Your task to perform on an android device: add a contact in the contacts app Image 0: 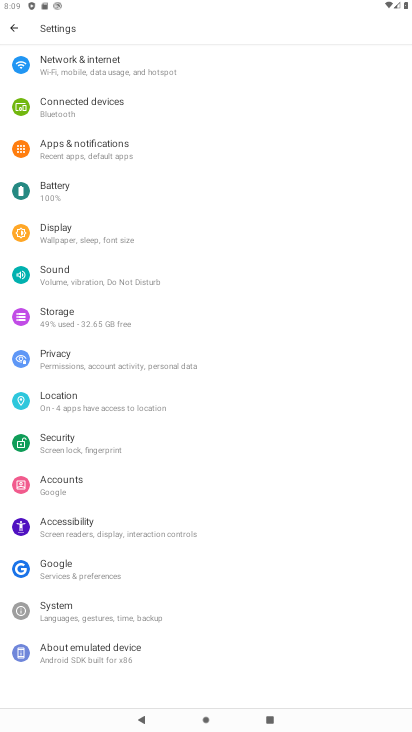
Step 0: press home button
Your task to perform on an android device: add a contact in the contacts app Image 1: 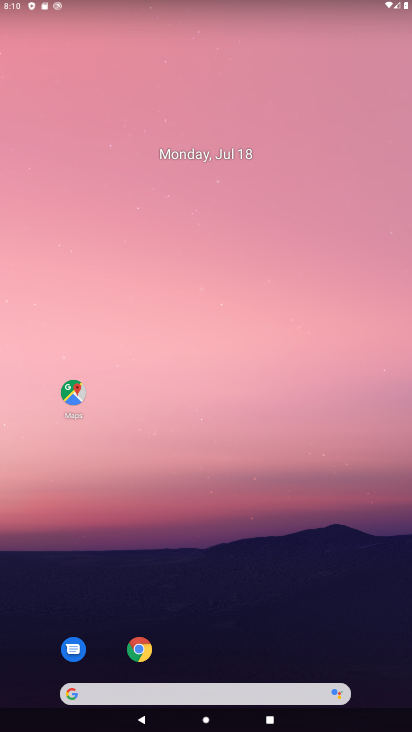
Step 1: drag from (263, 503) to (248, 260)
Your task to perform on an android device: add a contact in the contacts app Image 2: 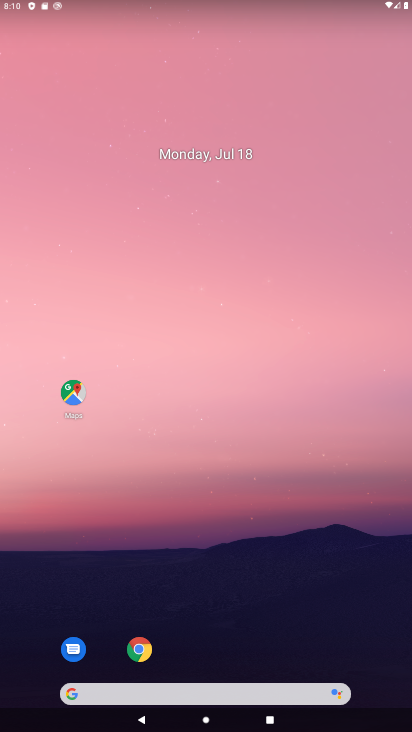
Step 2: drag from (258, 517) to (241, 153)
Your task to perform on an android device: add a contact in the contacts app Image 3: 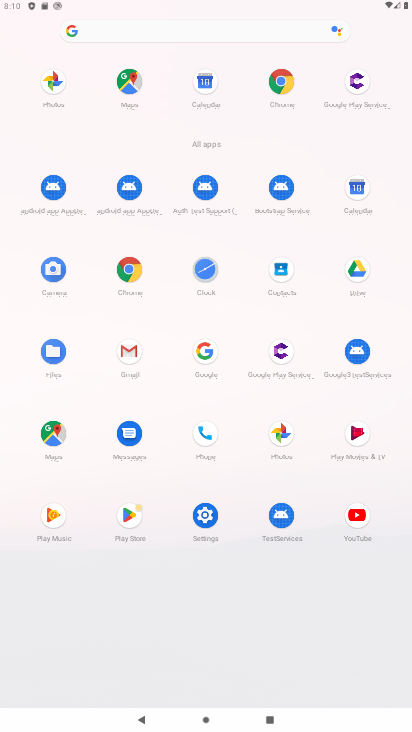
Step 3: click (283, 266)
Your task to perform on an android device: add a contact in the contacts app Image 4: 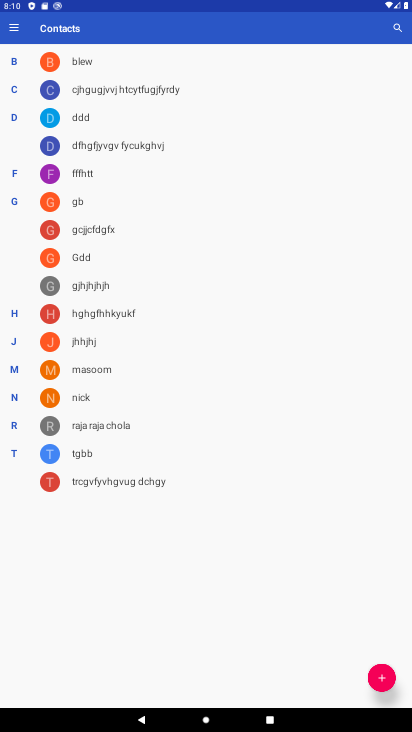
Step 4: click (386, 679)
Your task to perform on an android device: add a contact in the contacts app Image 5: 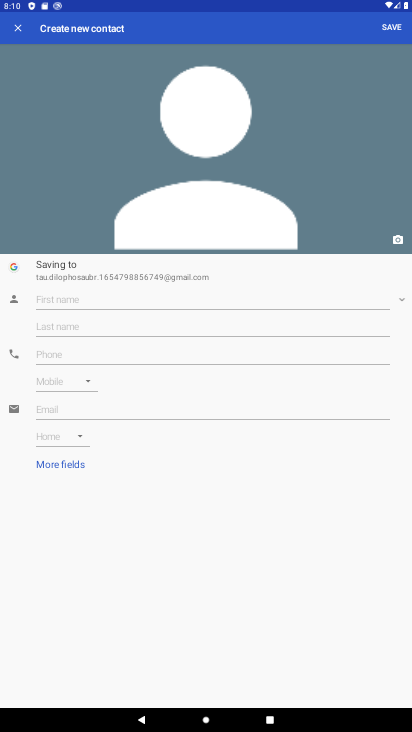
Step 5: click (197, 302)
Your task to perform on an android device: add a contact in the contacts app Image 6: 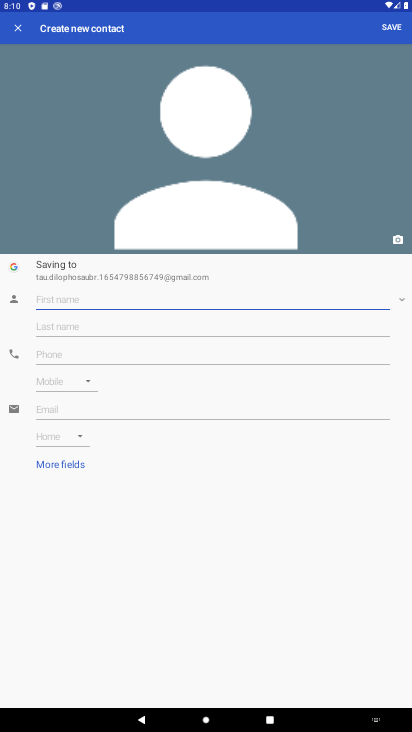
Step 6: type "bn"
Your task to perform on an android device: add a contact in the contacts app Image 7: 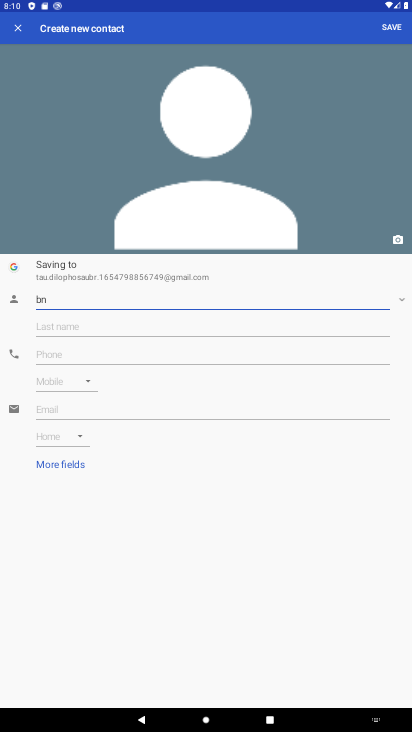
Step 7: press enter
Your task to perform on an android device: add a contact in the contacts app Image 8: 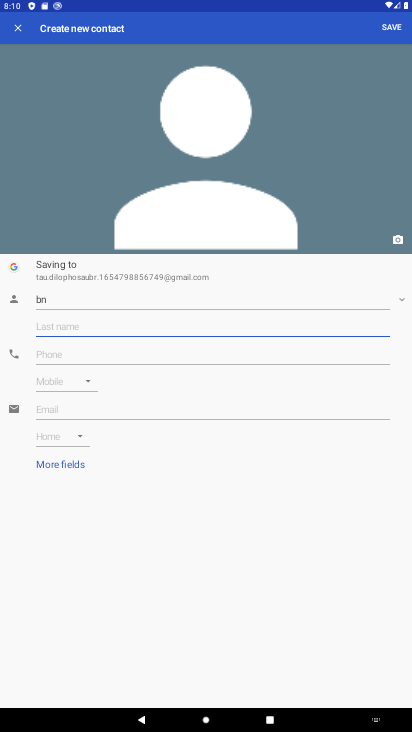
Step 8: press enter
Your task to perform on an android device: add a contact in the contacts app Image 9: 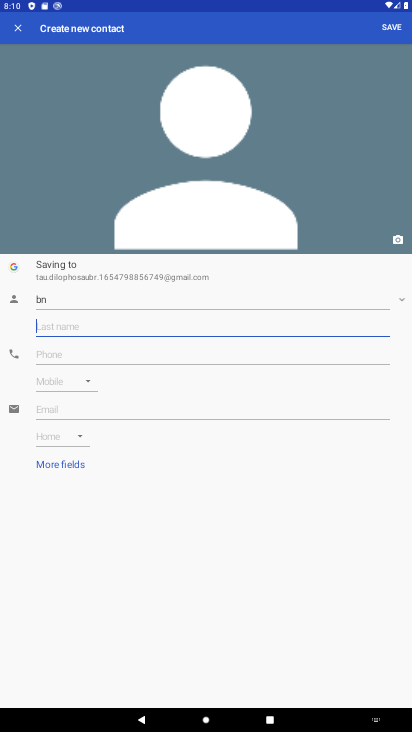
Step 9: type "nj"
Your task to perform on an android device: add a contact in the contacts app Image 10: 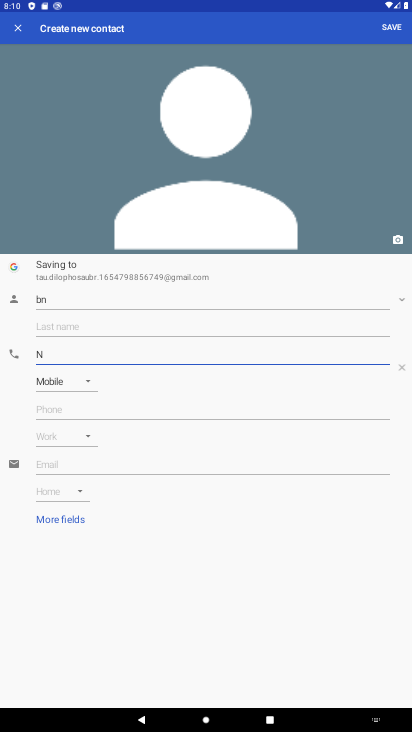
Step 10: click (400, 368)
Your task to perform on an android device: add a contact in the contacts app Image 11: 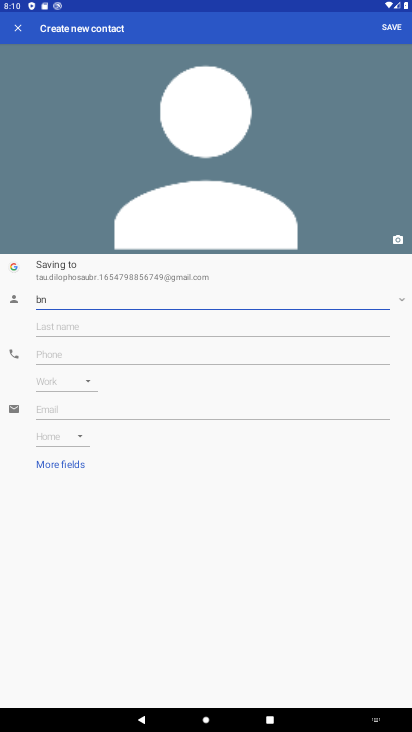
Step 11: click (226, 350)
Your task to perform on an android device: add a contact in the contacts app Image 12: 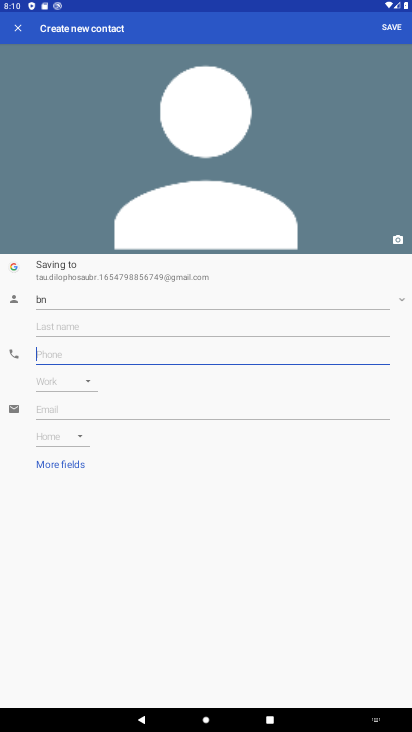
Step 12: type "4657878"
Your task to perform on an android device: add a contact in the contacts app Image 13: 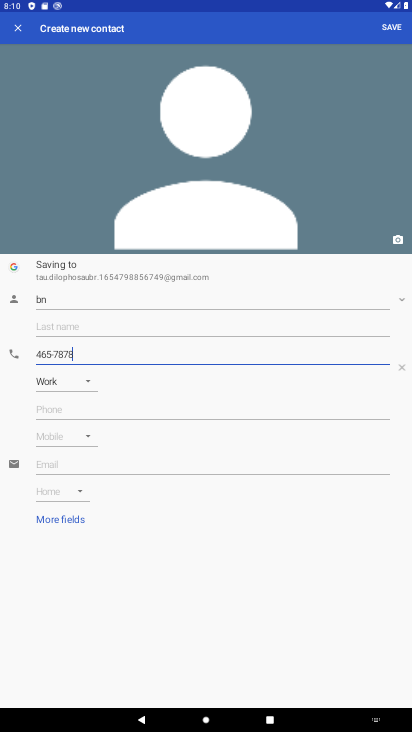
Step 13: click (391, 26)
Your task to perform on an android device: add a contact in the contacts app Image 14: 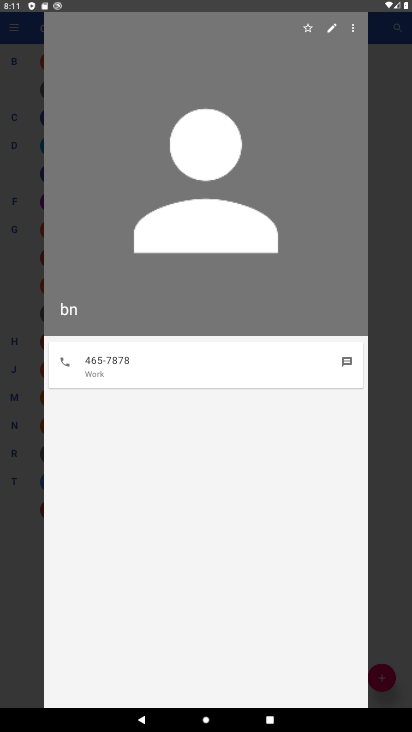
Step 14: task complete